Your task to perform on an android device: turn off sleep mode Image 0: 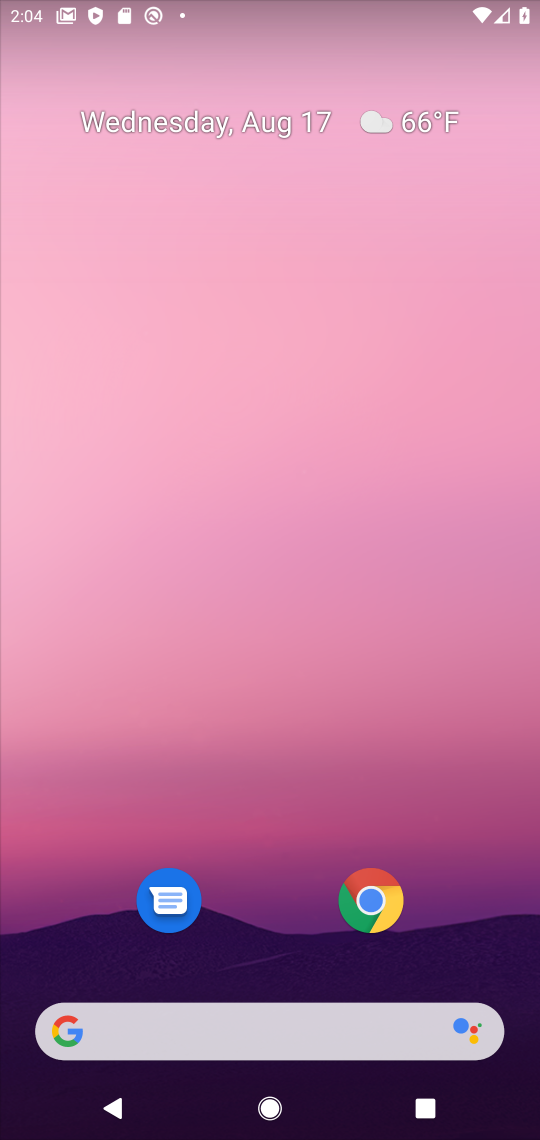
Step 0: drag from (259, 929) to (340, 302)
Your task to perform on an android device: turn off sleep mode Image 1: 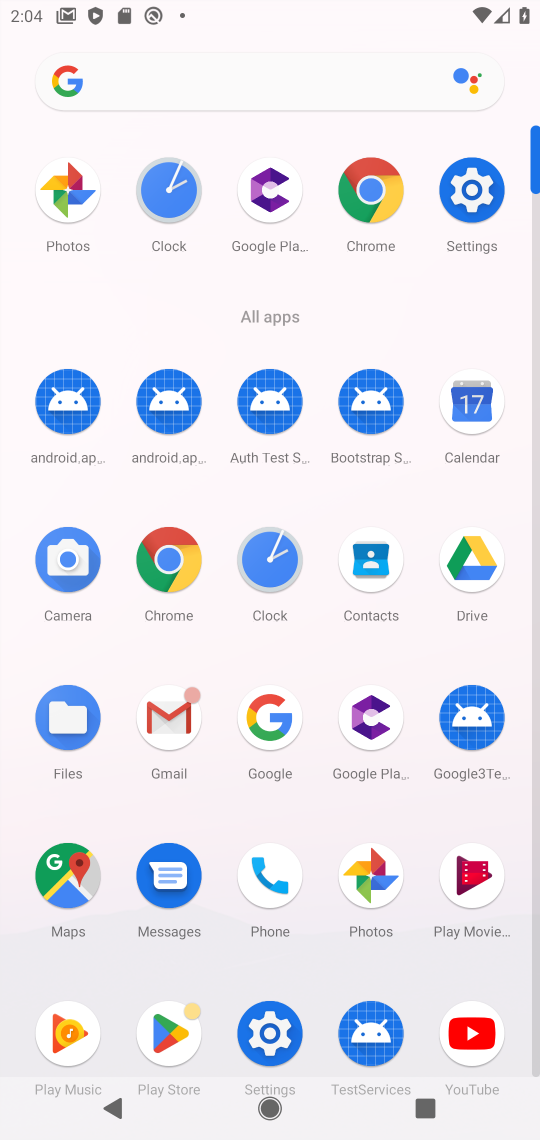
Step 1: click (463, 195)
Your task to perform on an android device: turn off sleep mode Image 2: 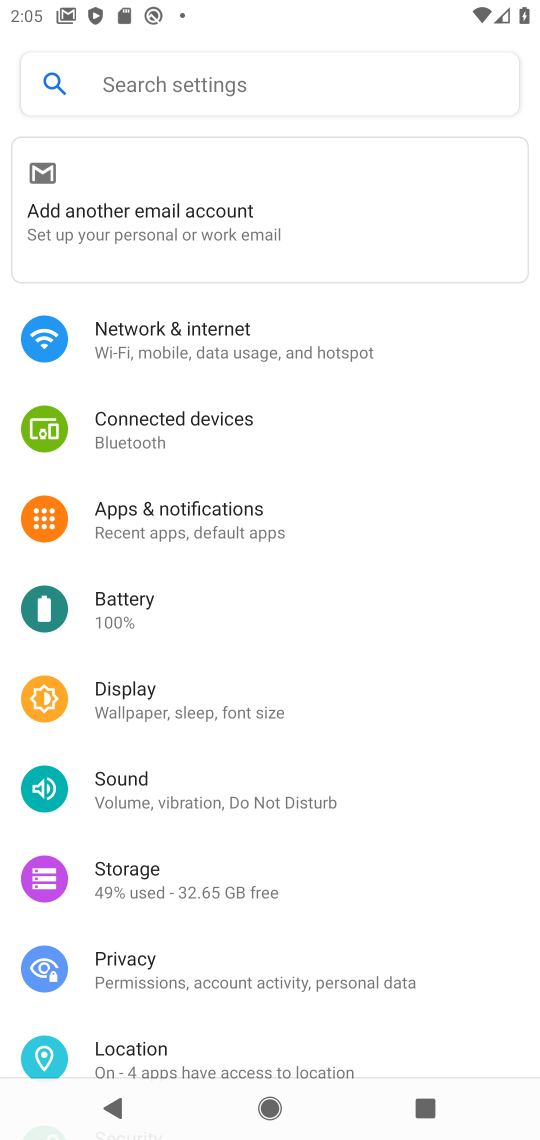
Step 2: drag from (324, 869) to (410, 429)
Your task to perform on an android device: turn off sleep mode Image 3: 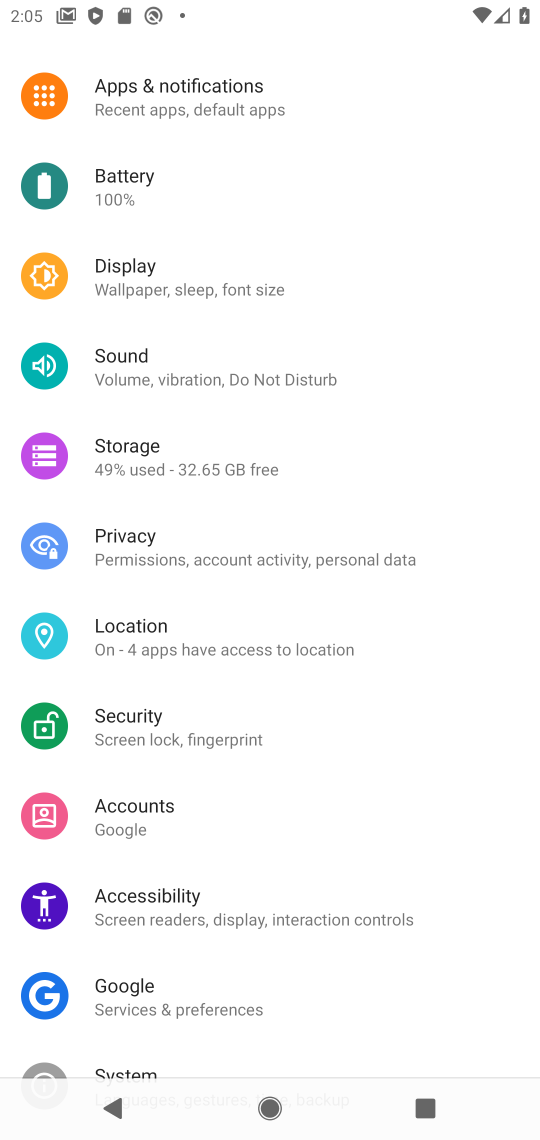
Step 3: click (163, 290)
Your task to perform on an android device: turn off sleep mode Image 4: 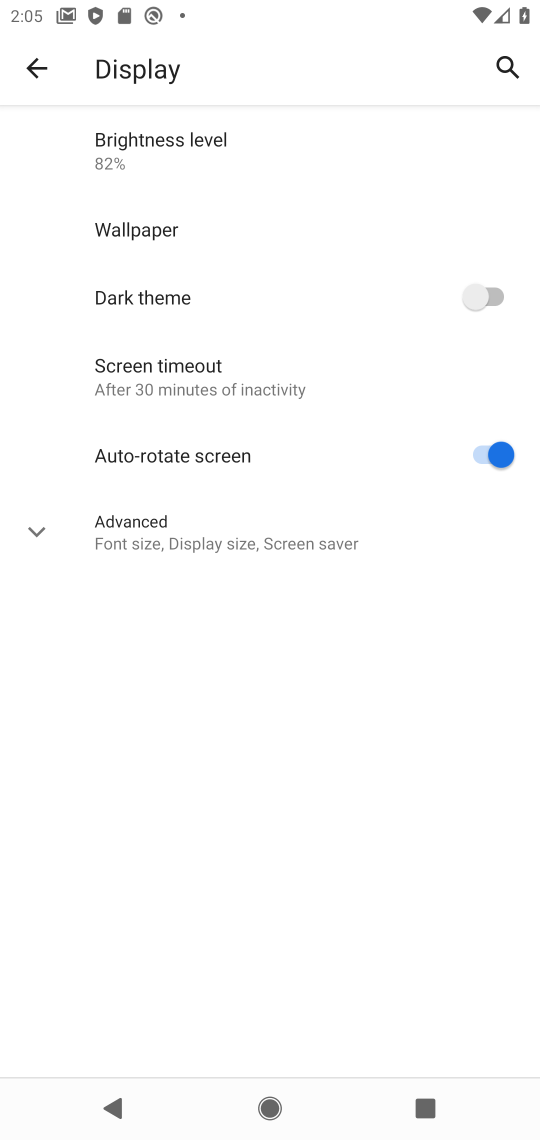
Step 4: task complete